Your task to perform on an android device: What's the weather going to be tomorrow? Image 0: 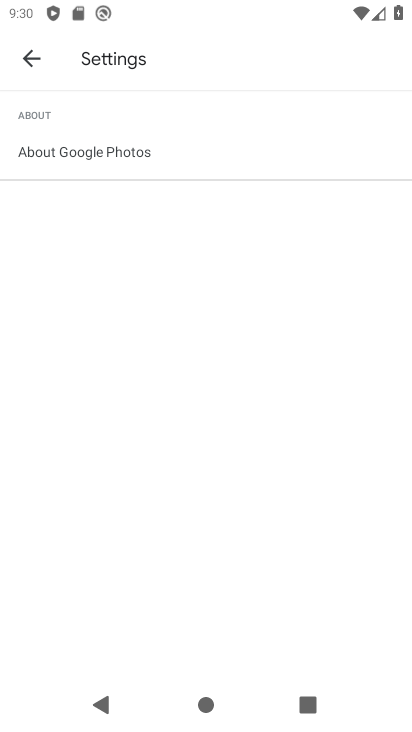
Step 0: press home button
Your task to perform on an android device: What's the weather going to be tomorrow? Image 1: 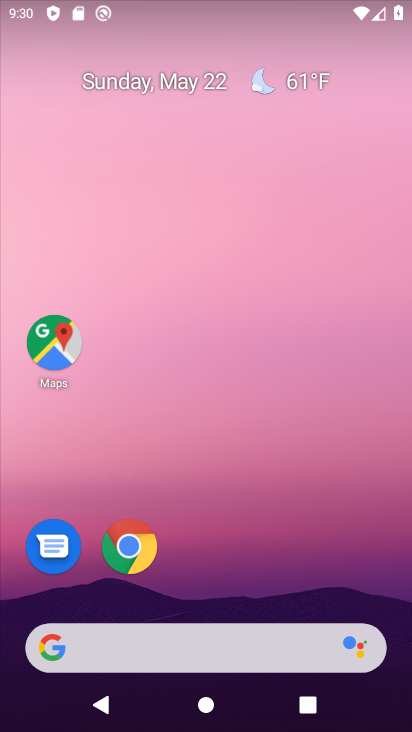
Step 1: click (290, 83)
Your task to perform on an android device: What's the weather going to be tomorrow? Image 2: 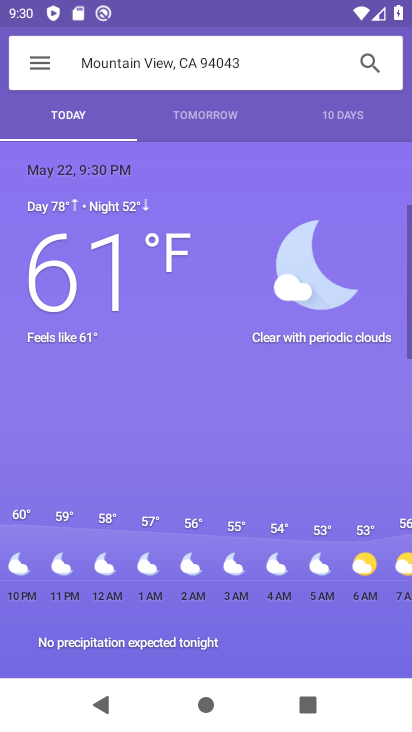
Step 2: click (211, 117)
Your task to perform on an android device: What's the weather going to be tomorrow? Image 3: 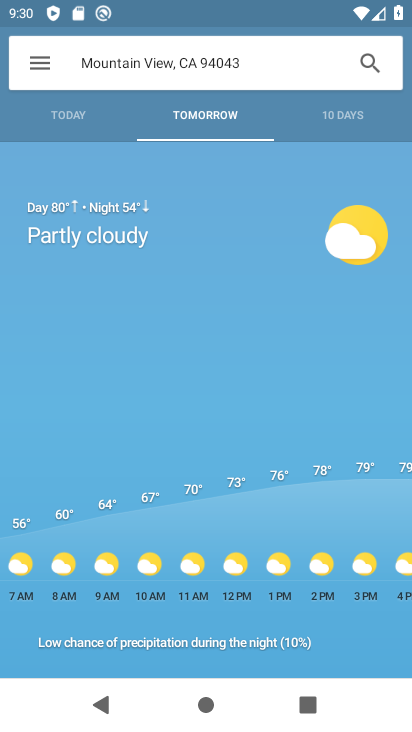
Step 3: task complete